Your task to perform on an android device: Open the stopwatch Image 0: 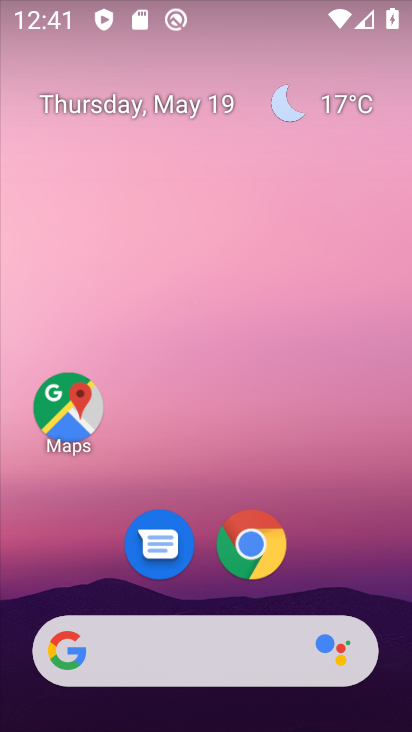
Step 0: drag from (214, 722) to (204, 190)
Your task to perform on an android device: Open the stopwatch Image 1: 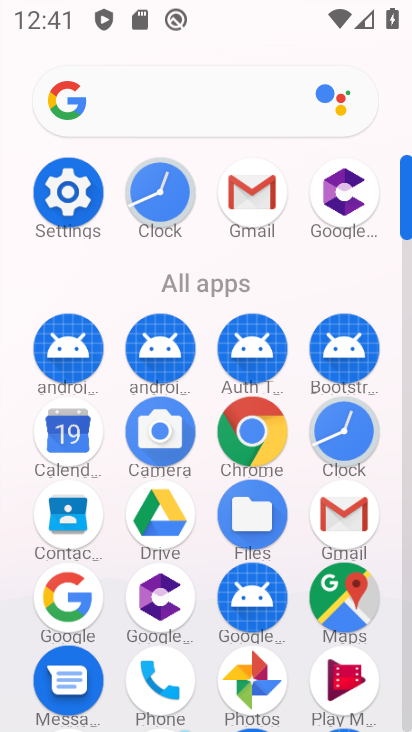
Step 1: click (345, 434)
Your task to perform on an android device: Open the stopwatch Image 2: 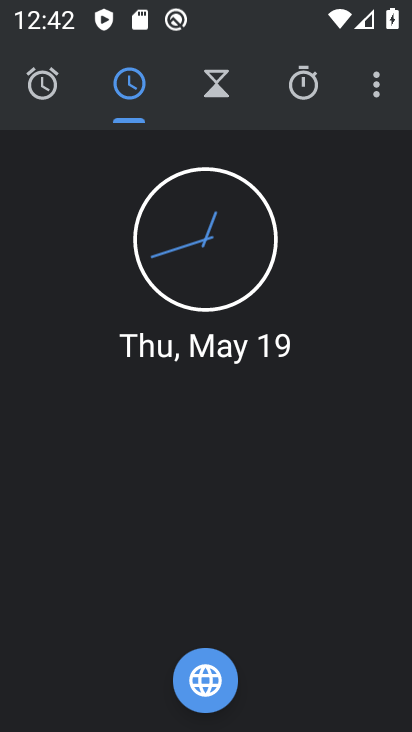
Step 2: click (309, 77)
Your task to perform on an android device: Open the stopwatch Image 3: 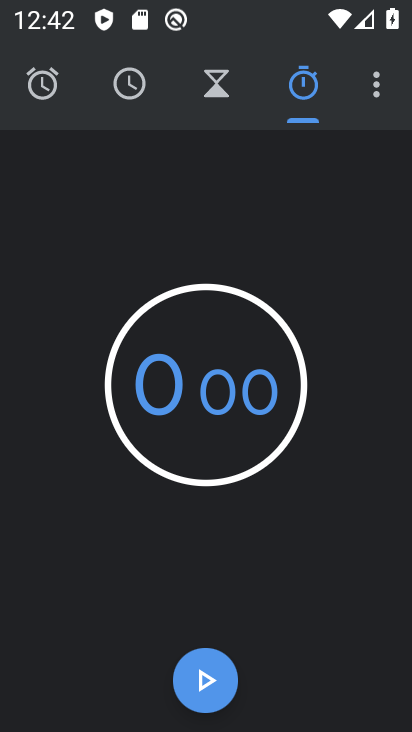
Step 3: task complete